Your task to perform on an android device: turn off data saver in the chrome app Image 0: 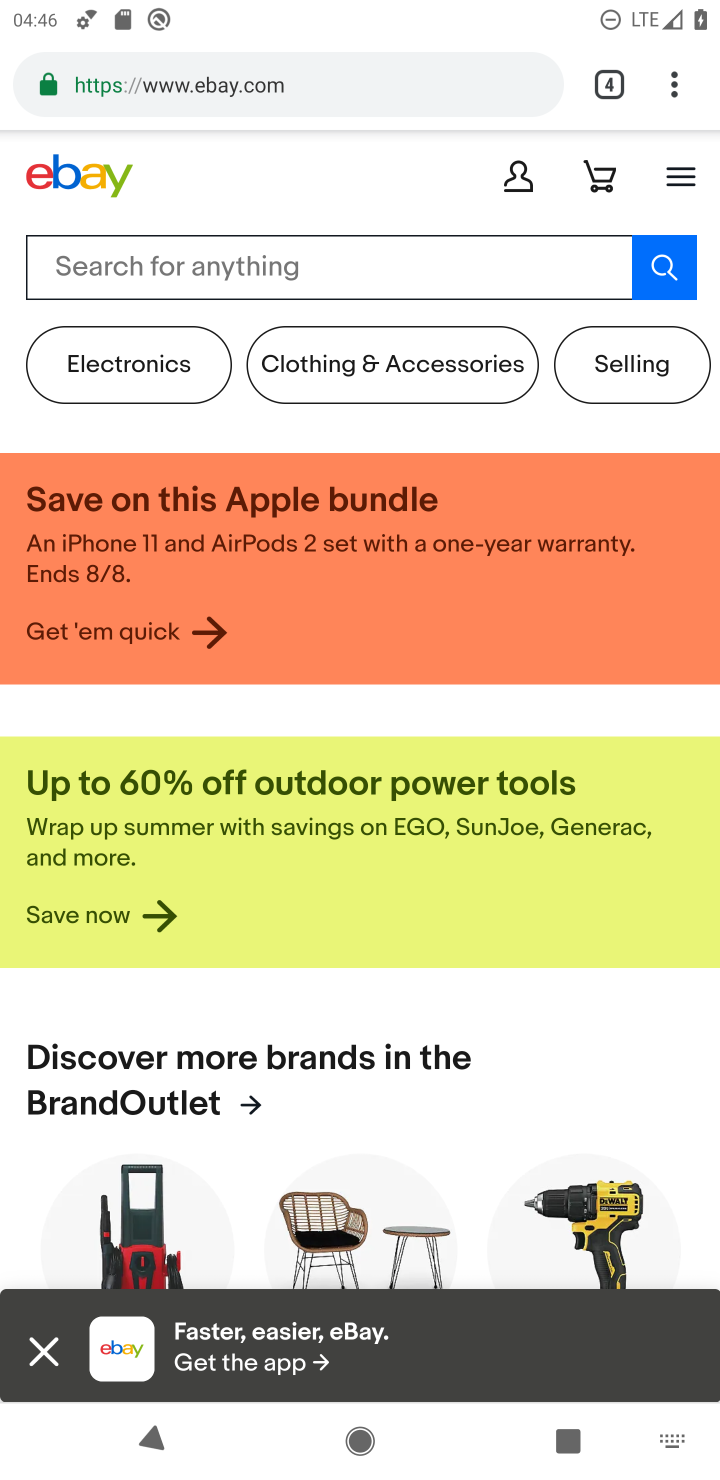
Step 0: click (684, 91)
Your task to perform on an android device: turn off data saver in the chrome app Image 1: 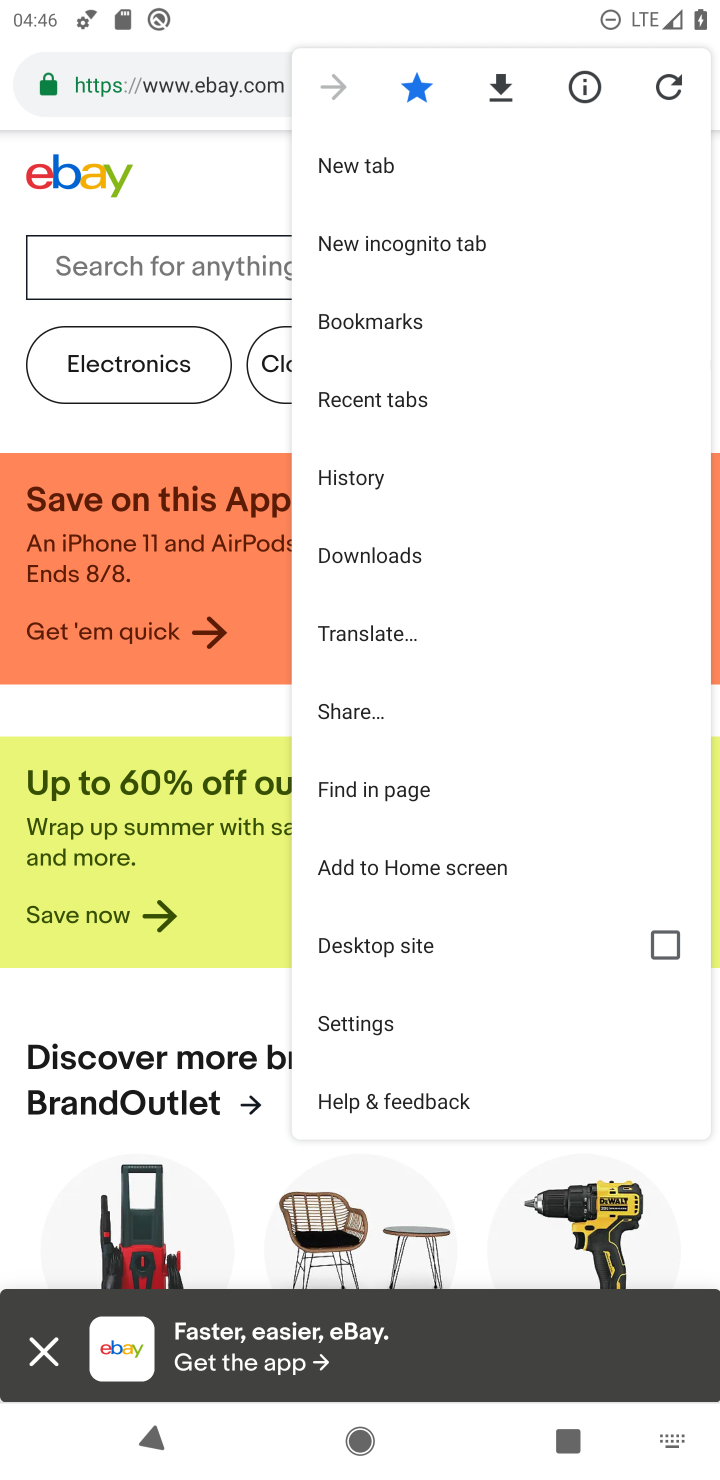
Step 1: click (523, 1013)
Your task to perform on an android device: turn off data saver in the chrome app Image 2: 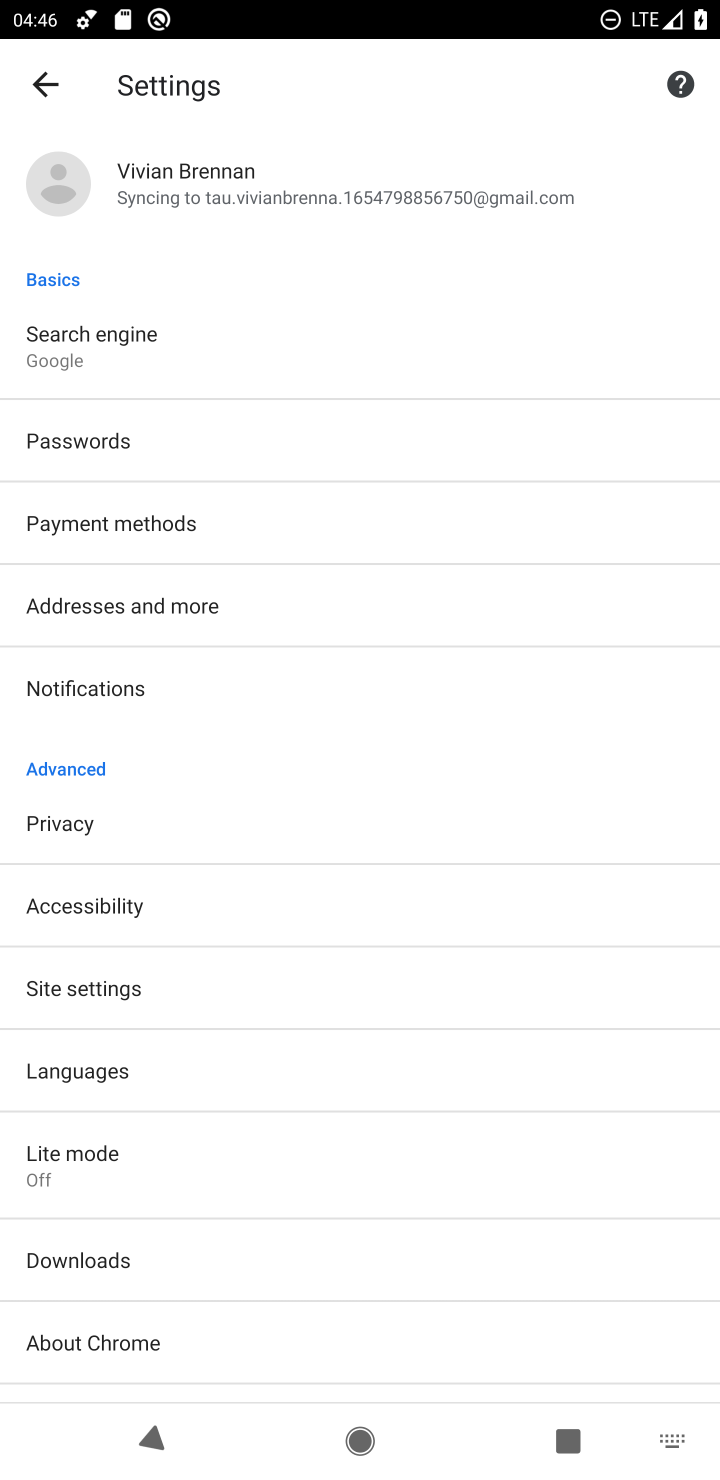
Step 2: click (280, 1185)
Your task to perform on an android device: turn off data saver in the chrome app Image 3: 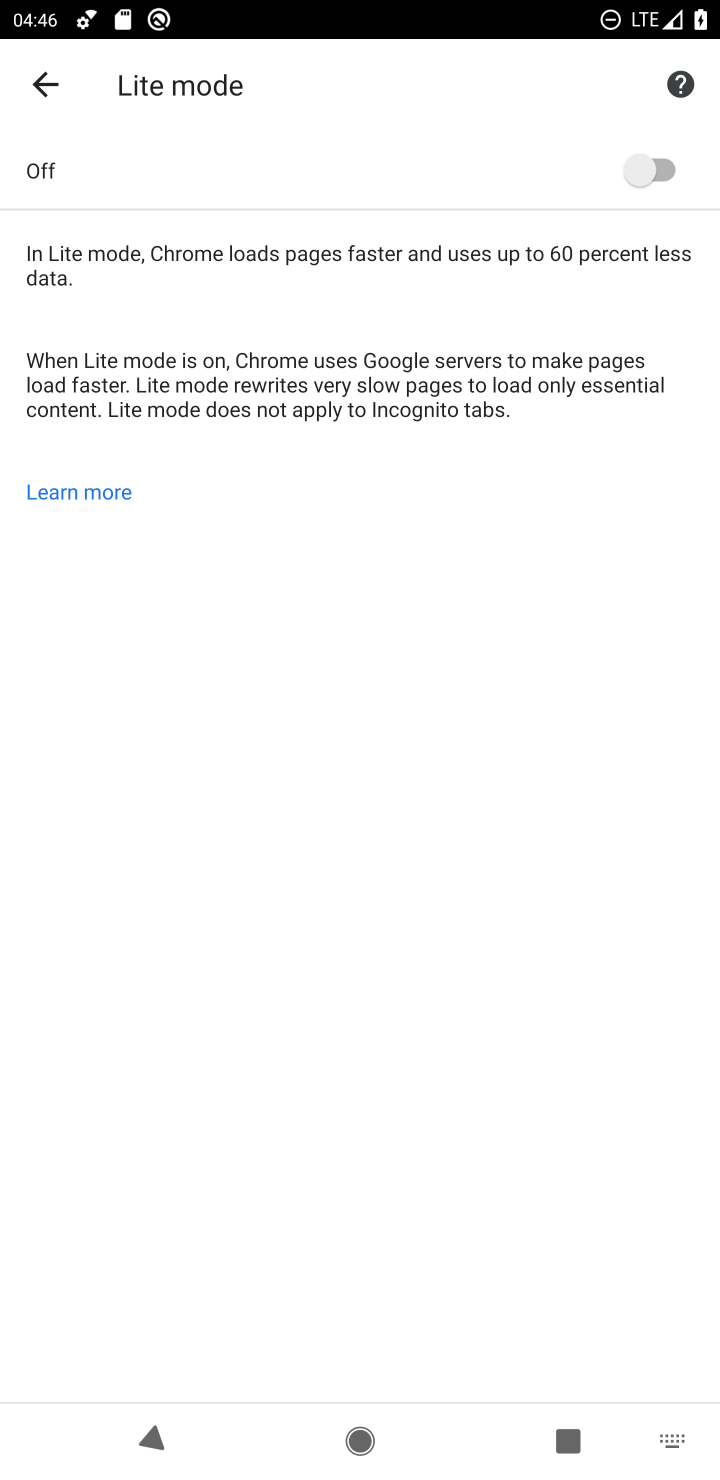
Step 3: task complete